Your task to perform on an android device: stop showing notifications on the lock screen Image 0: 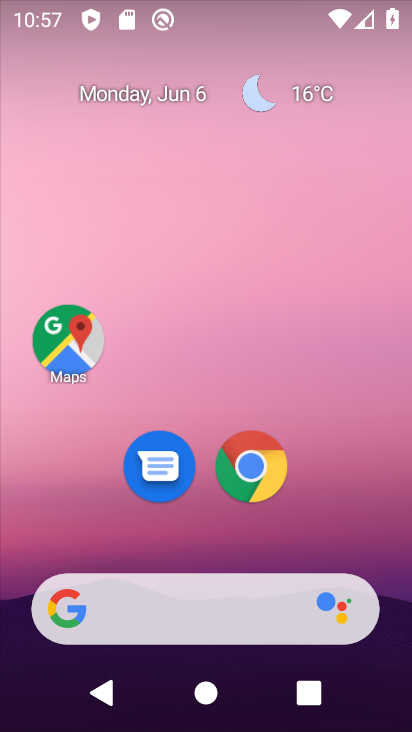
Step 0: press home button
Your task to perform on an android device: stop showing notifications on the lock screen Image 1: 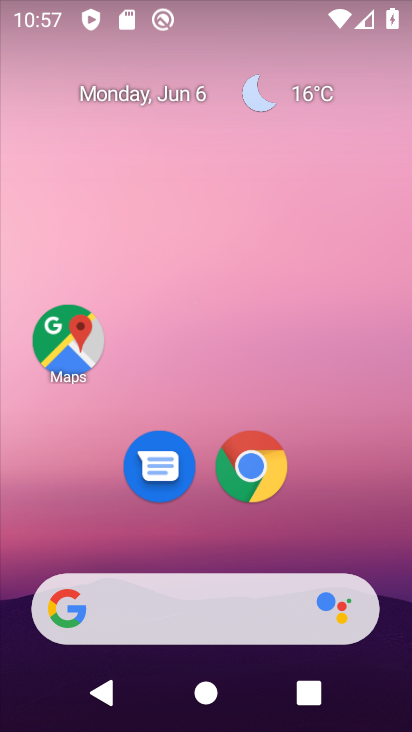
Step 1: drag from (270, 514) to (267, 1)
Your task to perform on an android device: stop showing notifications on the lock screen Image 2: 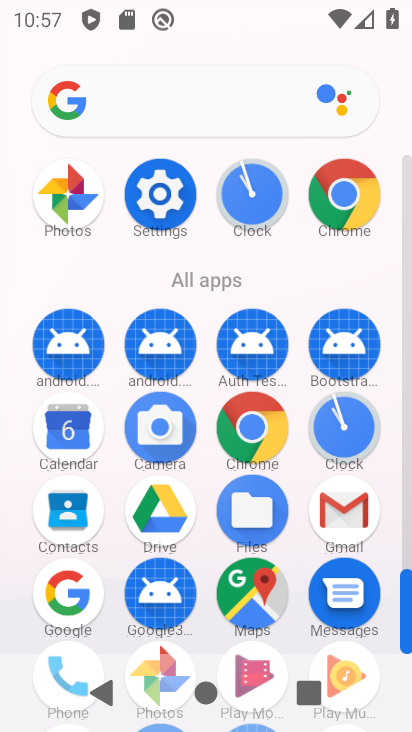
Step 2: click (164, 217)
Your task to perform on an android device: stop showing notifications on the lock screen Image 3: 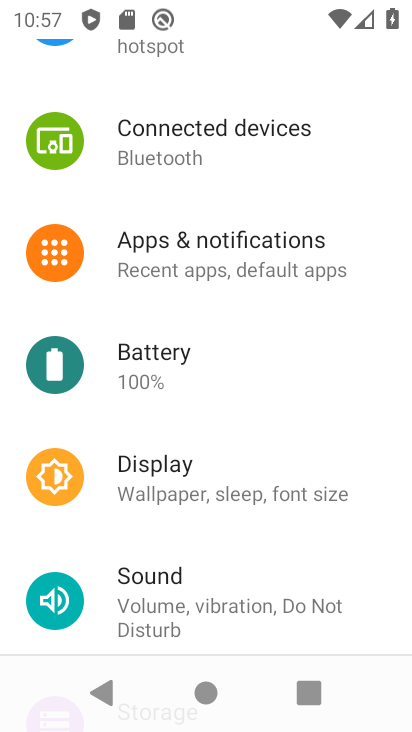
Step 3: click (169, 250)
Your task to perform on an android device: stop showing notifications on the lock screen Image 4: 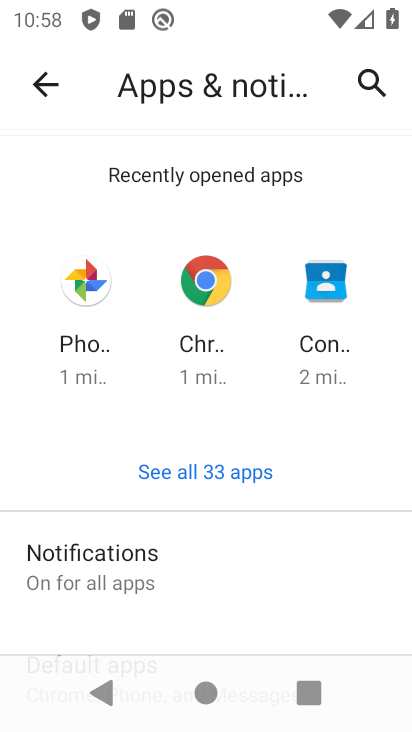
Step 4: click (92, 566)
Your task to perform on an android device: stop showing notifications on the lock screen Image 5: 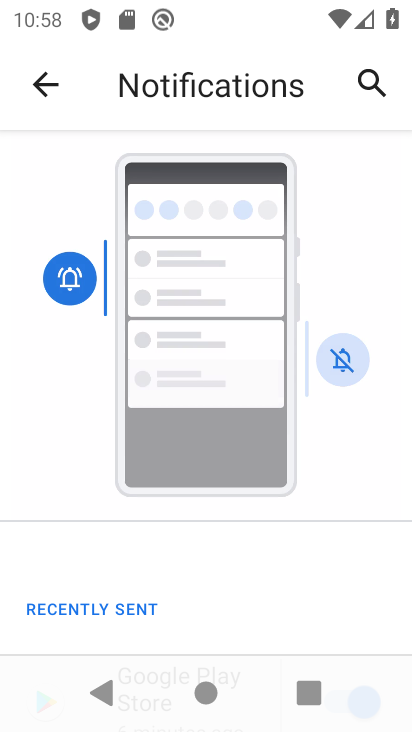
Step 5: drag from (177, 620) to (279, 274)
Your task to perform on an android device: stop showing notifications on the lock screen Image 6: 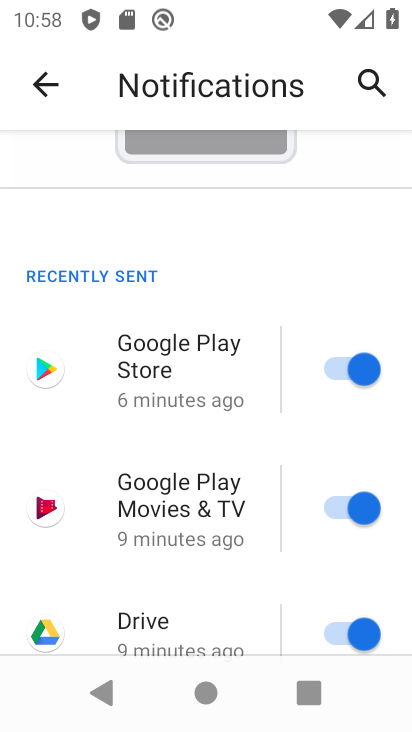
Step 6: drag from (225, 650) to (252, 335)
Your task to perform on an android device: stop showing notifications on the lock screen Image 7: 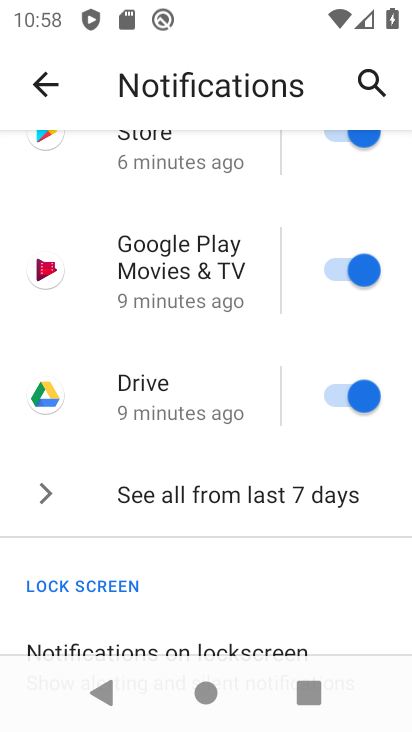
Step 7: drag from (240, 582) to (284, 298)
Your task to perform on an android device: stop showing notifications on the lock screen Image 8: 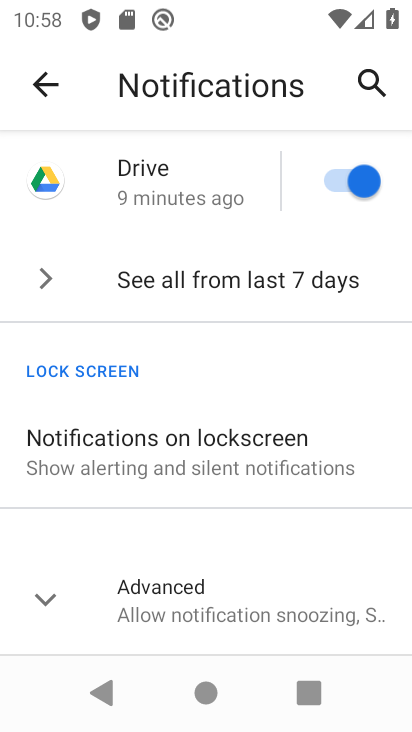
Step 8: click (200, 617)
Your task to perform on an android device: stop showing notifications on the lock screen Image 9: 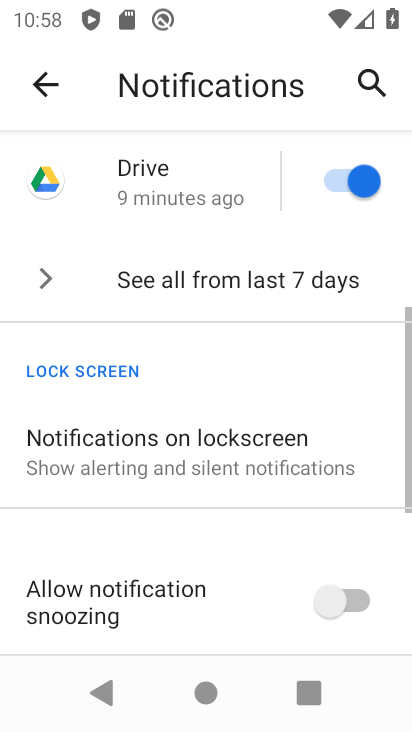
Step 9: drag from (224, 610) to (276, 100)
Your task to perform on an android device: stop showing notifications on the lock screen Image 10: 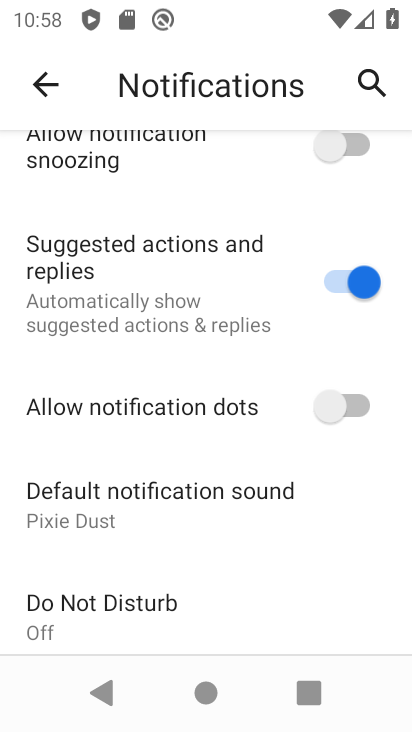
Step 10: drag from (209, 319) to (186, 727)
Your task to perform on an android device: stop showing notifications on the lock screen Image 11: 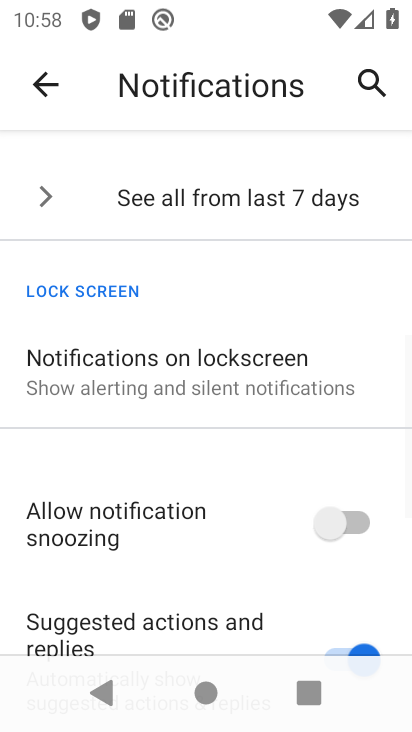
Step 11: click (184, 420)
Your task to perform on an android device: stop showing notifications on the lock screen Image 12: 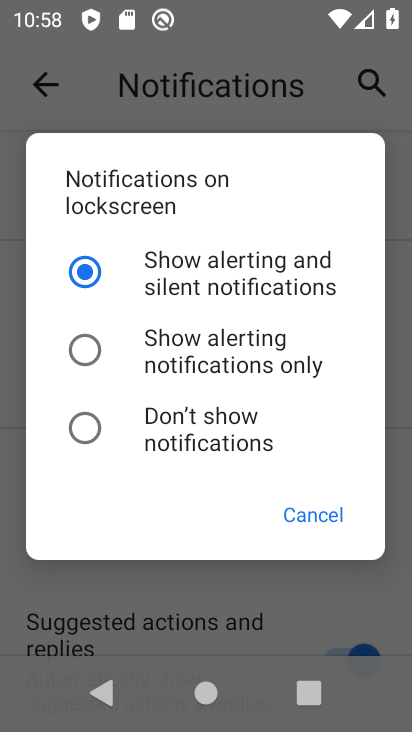
Step 12: click (184, 437)
Your task to perform on an android device: stop showing notifications on the lock screen Image 13: 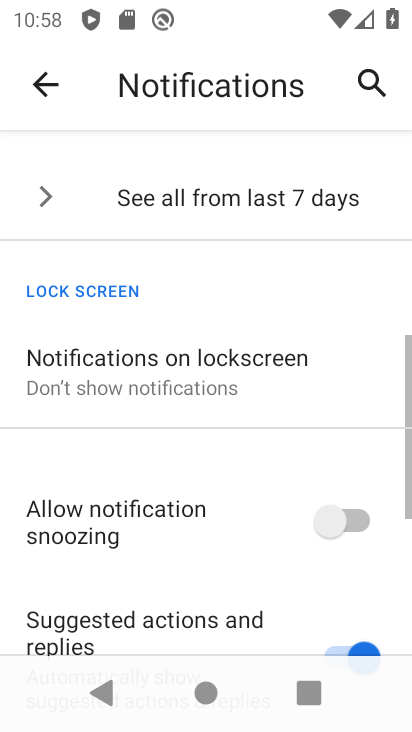
Step 13: task complete